Your task to perform on an android device: open a bookmark in the chrome app Image 0: 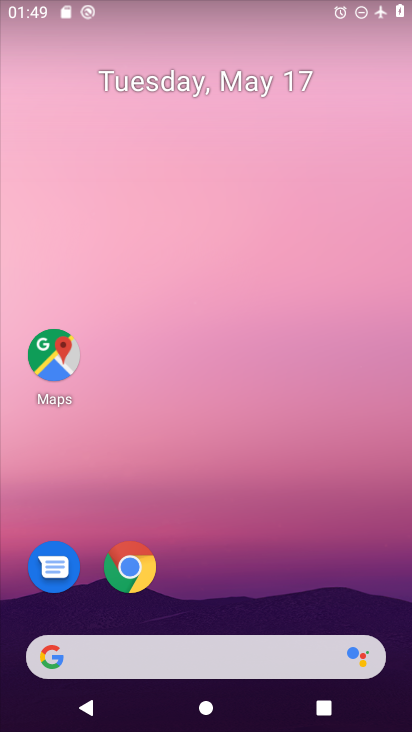
Step 0: click (133, 569)
Your task to perform on an android device: open a bookmark in the chrome app Image 1: 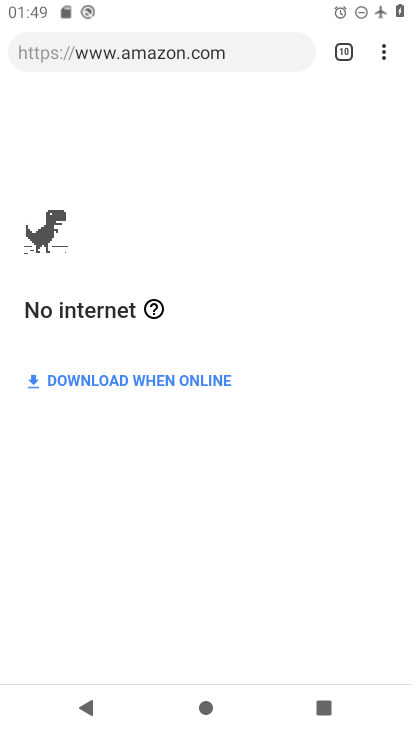
Step 1: click (380, 52)
Your task to perform on an android device: open a bookmark in the chrome app Image 2: 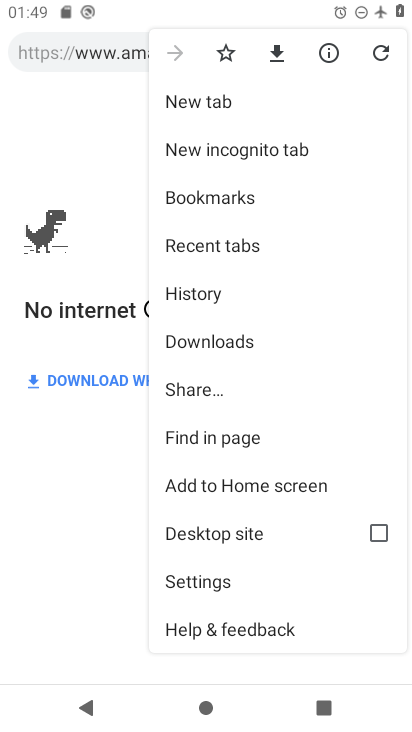
Step 2: click (211, 197)
Your task to perform on an android device: open a bookmark in the chrome app Image 3: 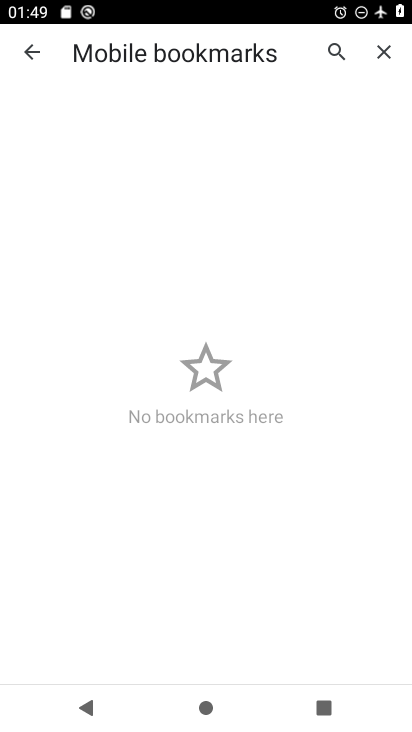
Step 3: task complete